Your task to perform on an android device: Go to notification settings Image 0: 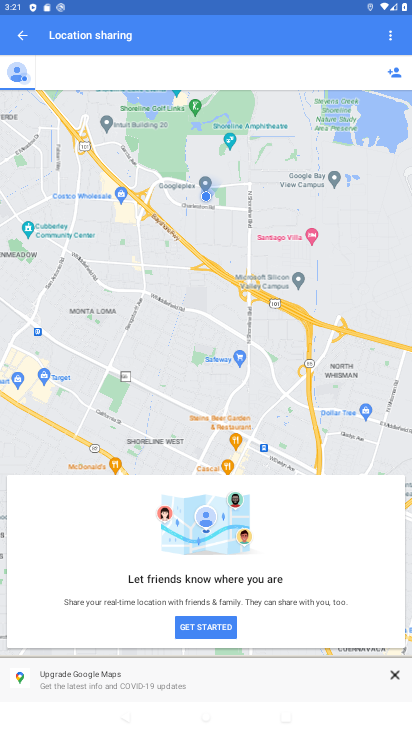
Step 0: press home button
Your task to perform on an android device: Go to notification settings Image 1: 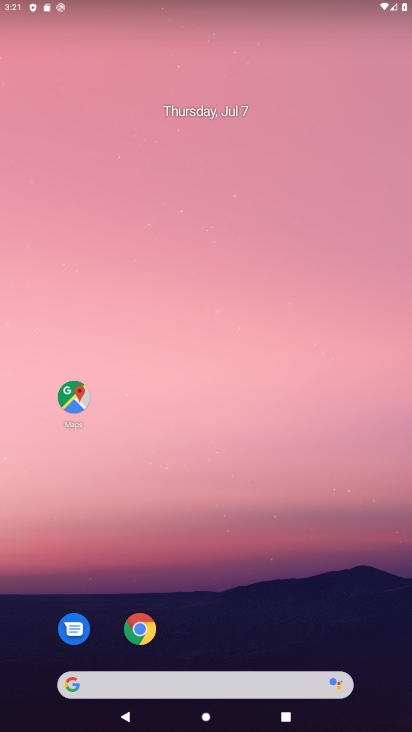
Step 1: drag from (33, 682) to (224, 23)
Your task to perform on an android device: Go to notification settings Image 2: 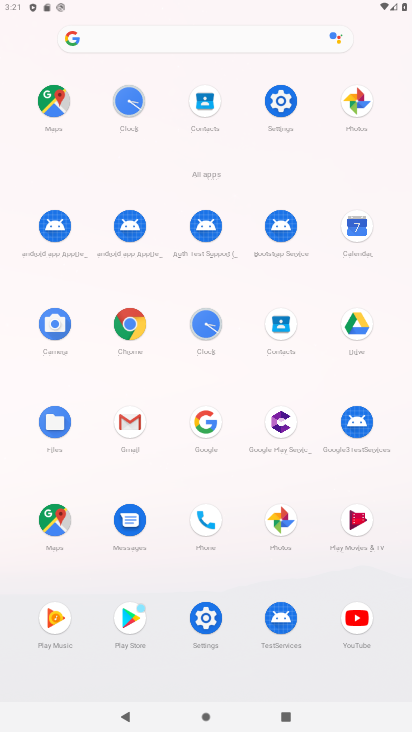
Step 2: click (196, 611)
Your task to perform on an android device: Go to notification settings Image 3: 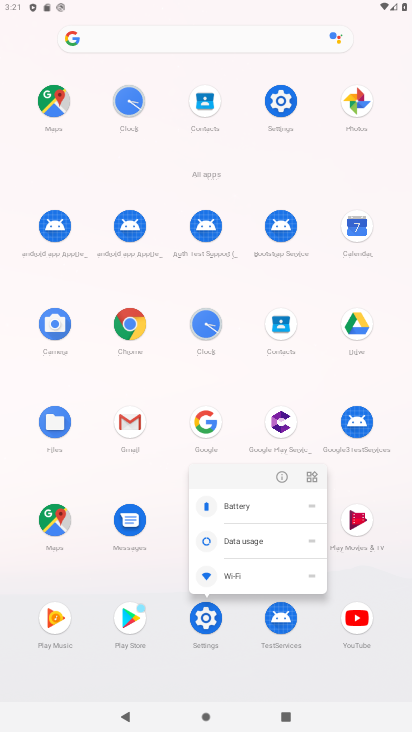
Step 3: click (203, 627)
Your task to perform on an android device: Go to notification settings Image 4: 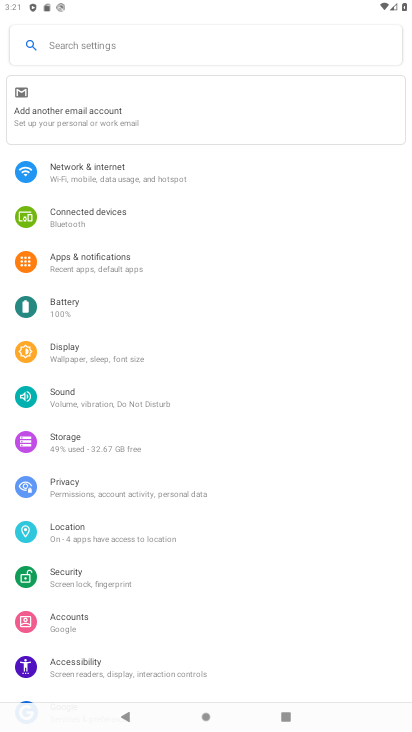
Step 4: drag from (220, 463) to (223, 276)
Your task to perform on an android device: Go to notification settings Image 5: 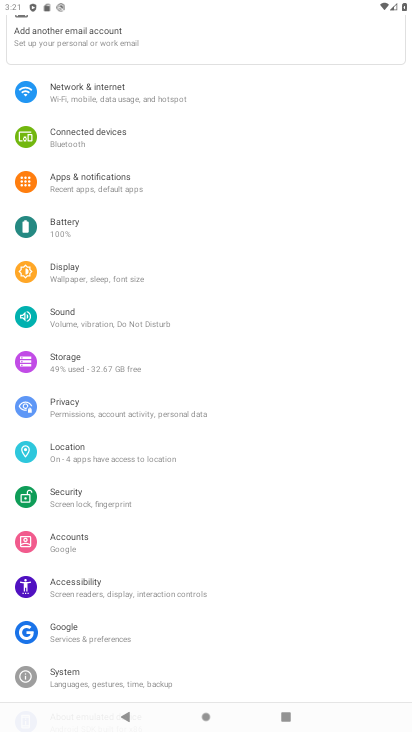
Step 5: drag from (233, 652) to (216, 202)
Your task to perform on an android device: Go to notification settings Image 6: 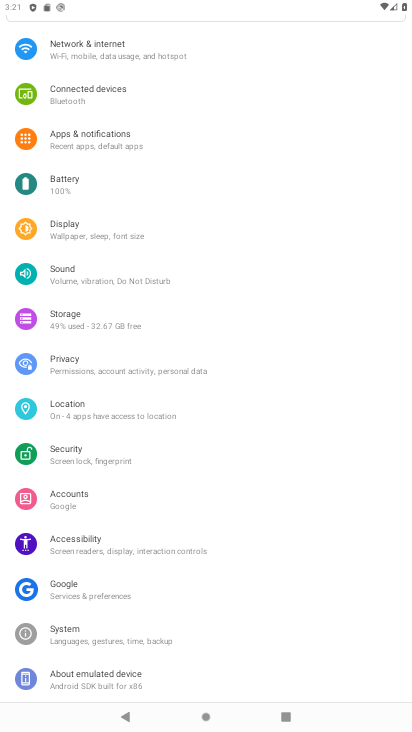
Step 6: drag from (257, 640) to (241, 3)
Your task to perform on an android device: Go to notification settings Image 7: 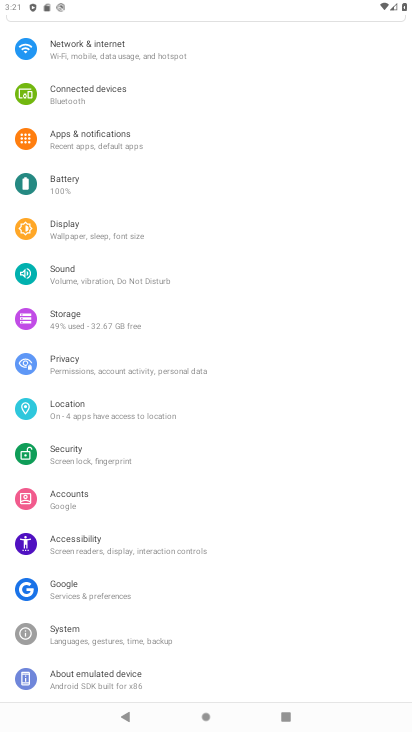
Step 7: drag from (282, 688) to (283, 70)
Your task to perform on an android device: Go to notification settings Image 8: 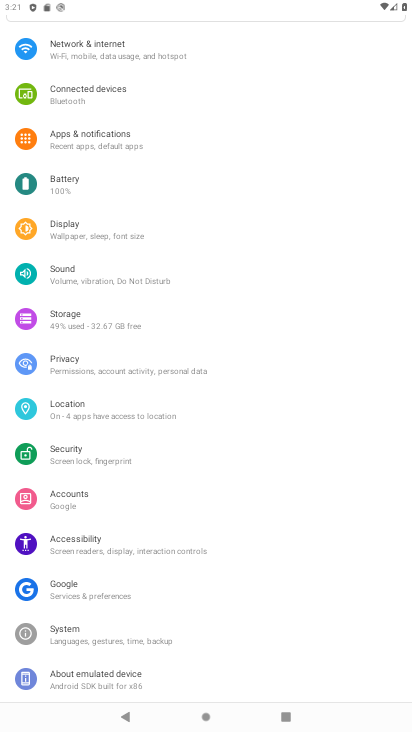
Step 8: drag from (256, 86) to (356, 655)
Your task to perform on an android device: Go to notification settings Image 9: 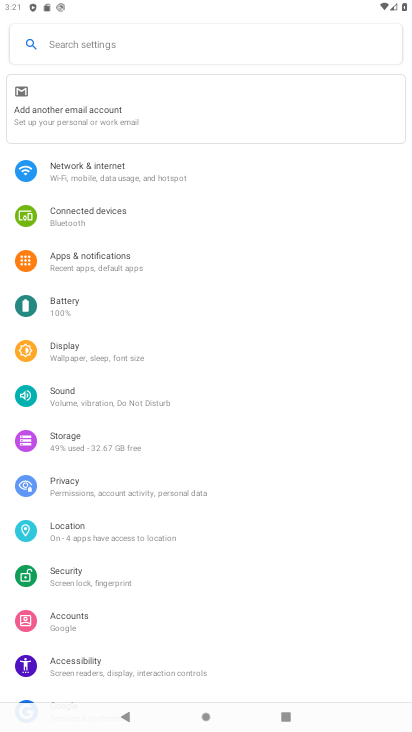
Step 9: drag from (326, 258) to (318, 717)
Your task to perform on an android device: Go to notification settings Image 10: 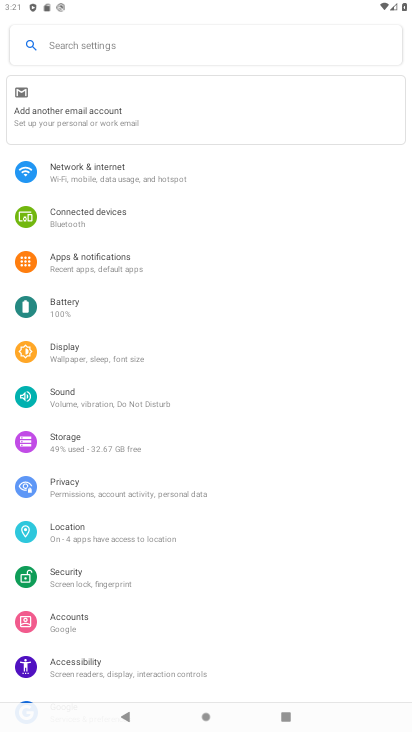
Step 10: drag from (285, 632) to (285, 311)
Your task to perform on an android device: Go to notification settings Image 11: 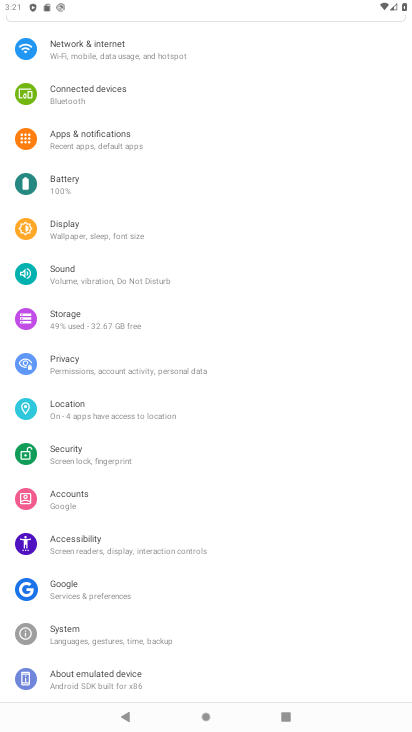
Step 11: drag from (340, 588) to (336, 176)
Your task to perform on an android device: Go to notification settings Image 12: 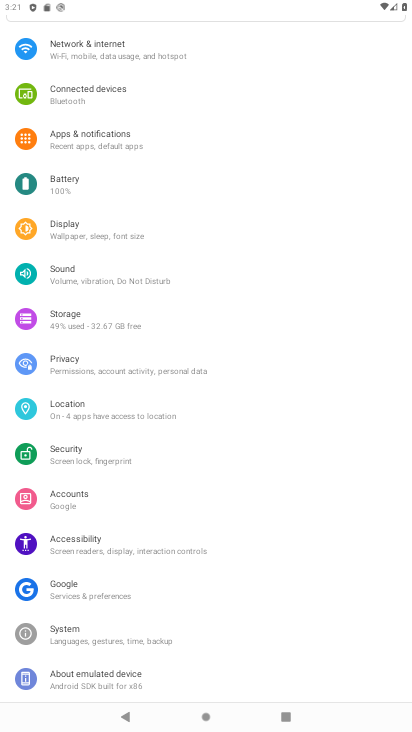
Step 12: click (106, 140)
Your task to perform on an android device: Go to notification settings Image 13: 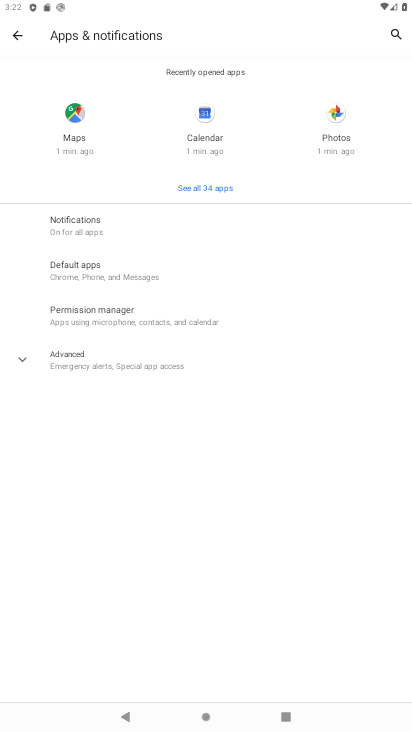
Step 13: click (97, 226)
Your task to perform on an android device: Go to notification settings Image 14: 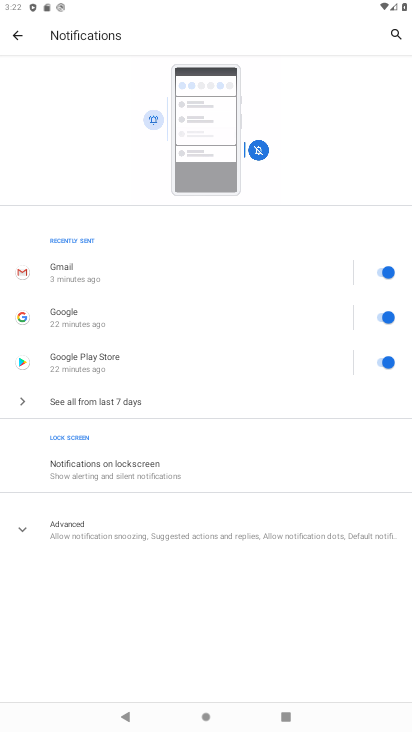
Step 14: task complete